Your task to perform on an android device: What's the weather going to be this weekend? Image 0: 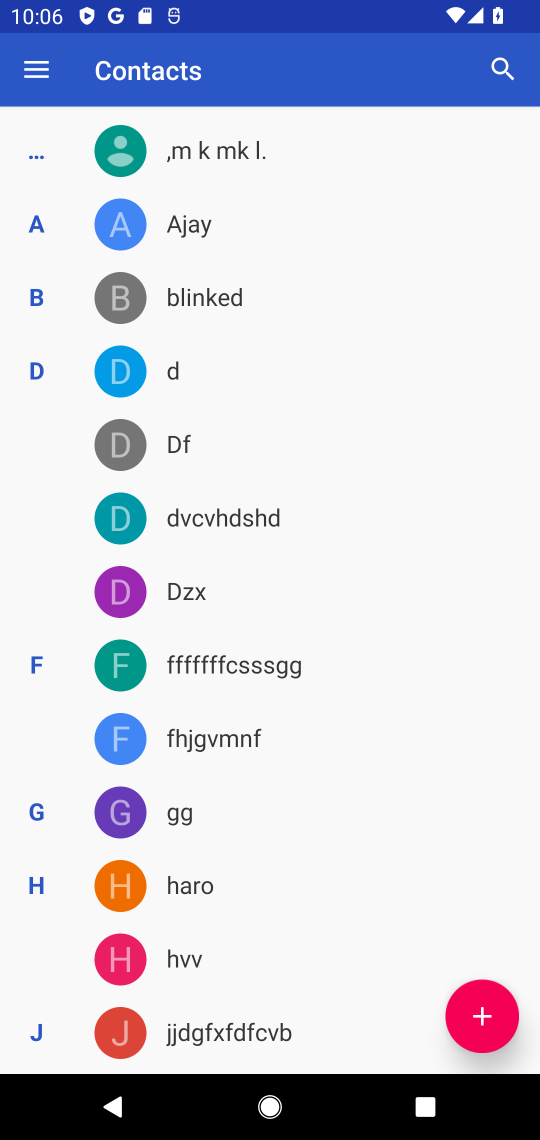
Step 0: press home button
Your task to perform on an android device: What's the weather going to be this weekend? Image 1: 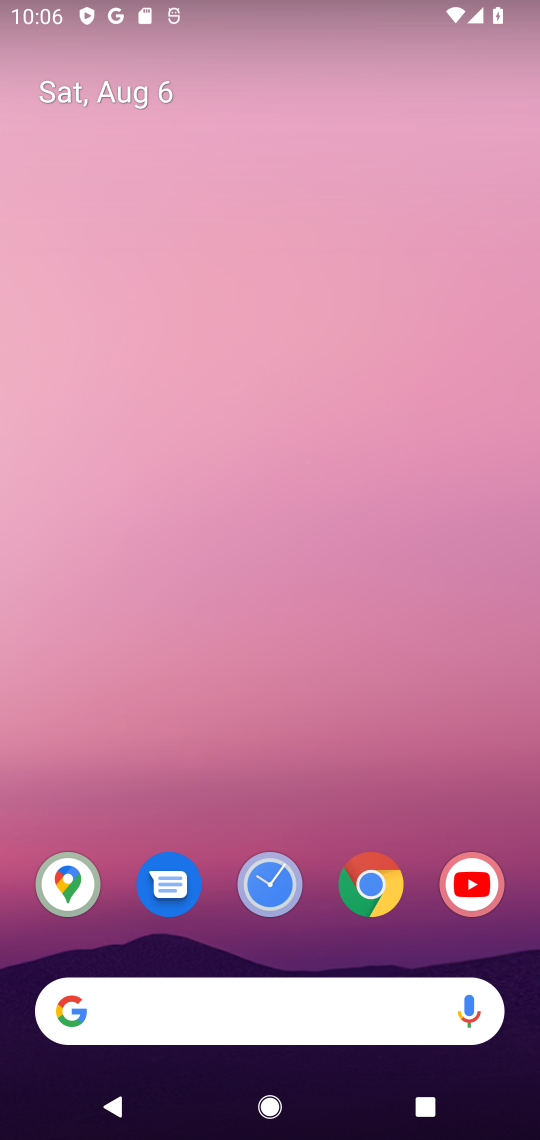
Step 1: click (235, 1001)
Your task to perform on an android device: What's the weather going to be this weekend? Image 2: 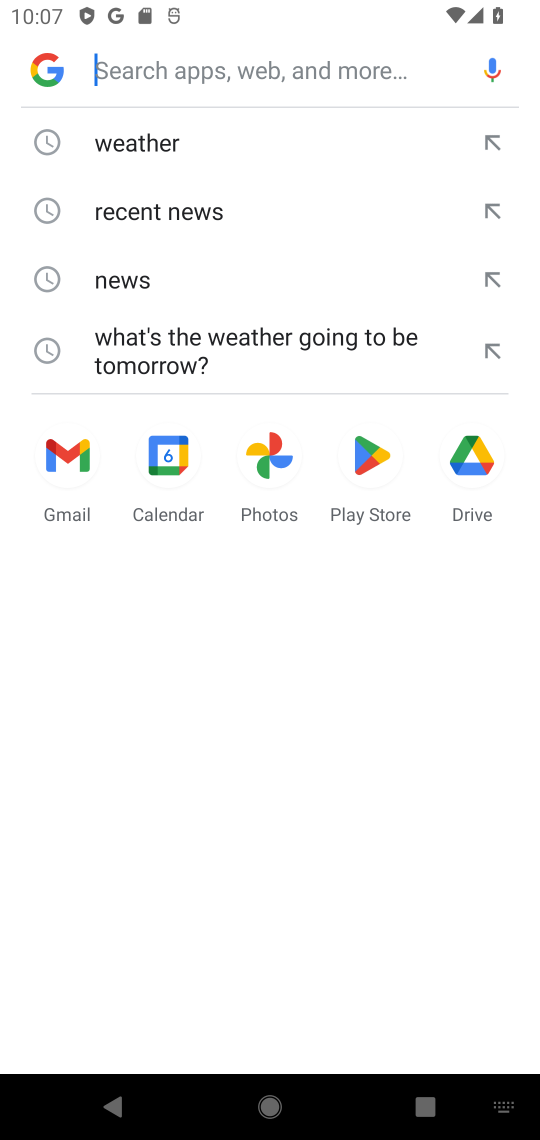
Step 2: click (148, 131)
Your task to perform on an android device: What's the weather going to be this weekend? Image 3: 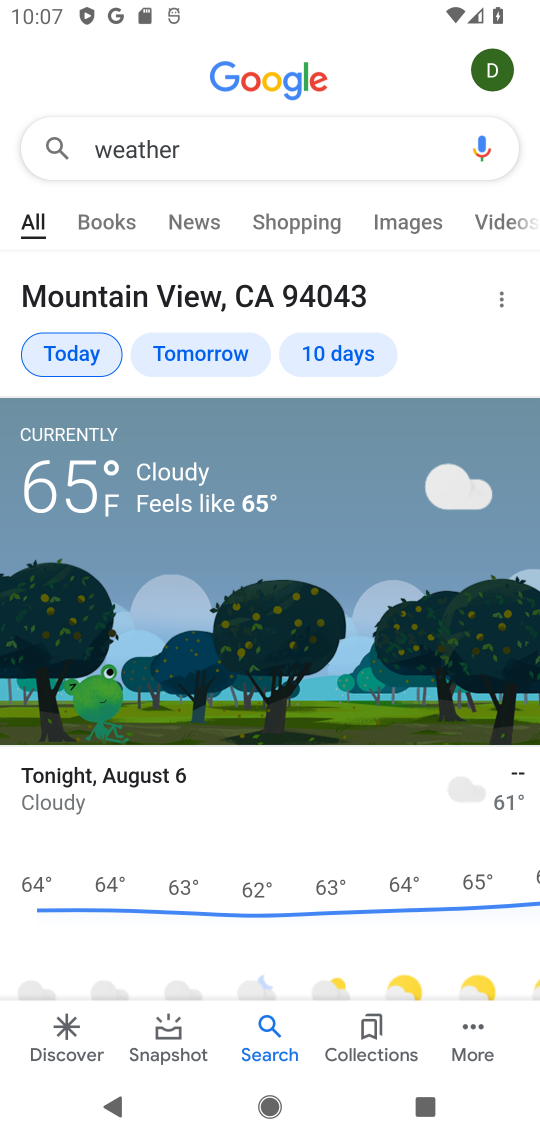
Step 3: click (347, 347)
Your task to perform on an android device: What's the weather going to be this weekend? Image 4: 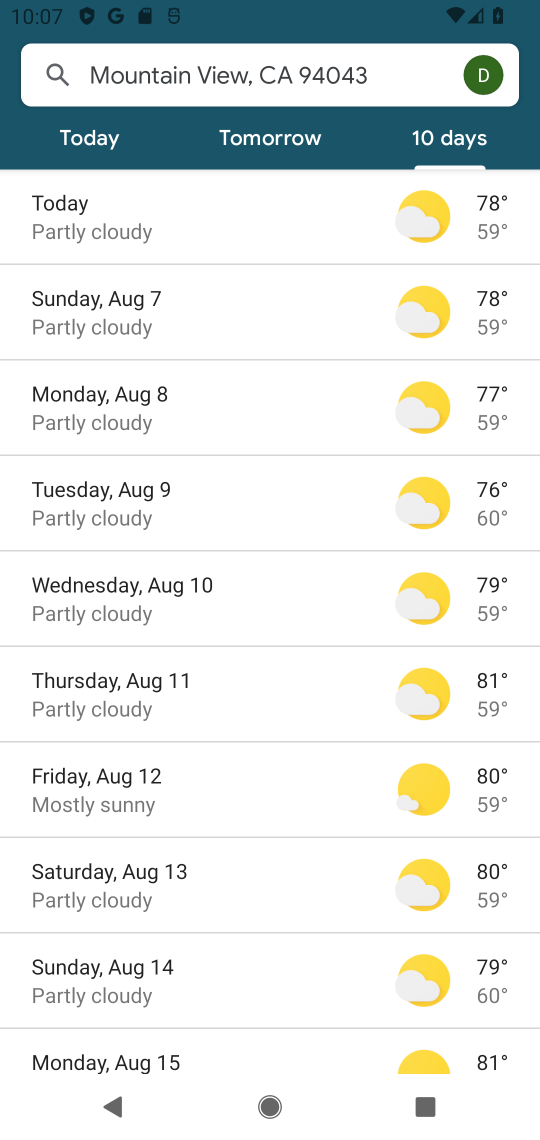
Step 4: task complete